Your task to perform on an android device: Show me popular games on the Play Store Image 0: 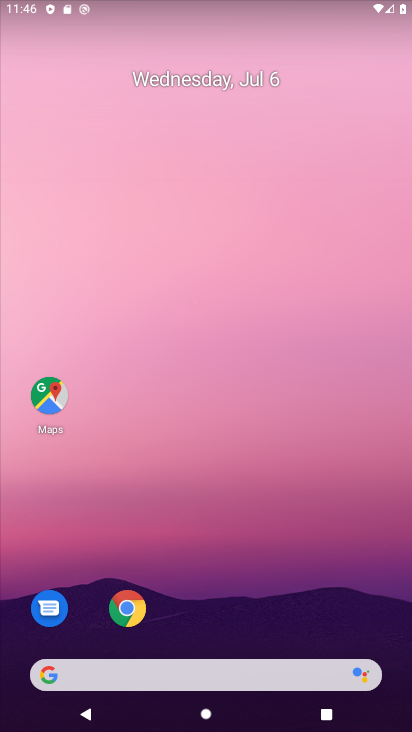
Step 0: drag from (231, 596) to (163, 162)
Your task to perform on an android device: Show me popular games on the Play Store Image 1: 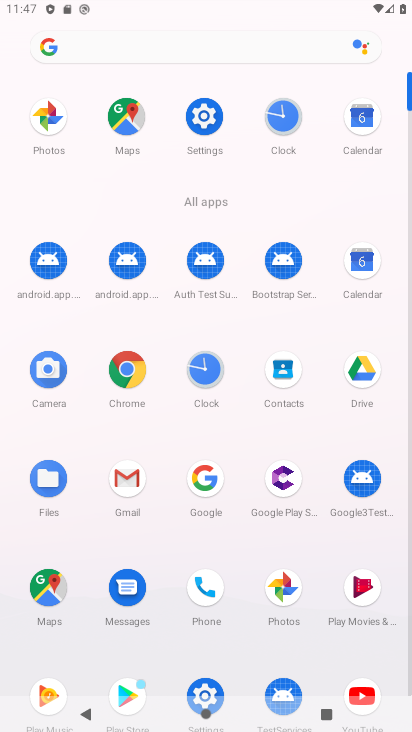
Step 1: click (131, 685)
Your task to perform on an android device: Show me popular games on the Play Store Image 2: 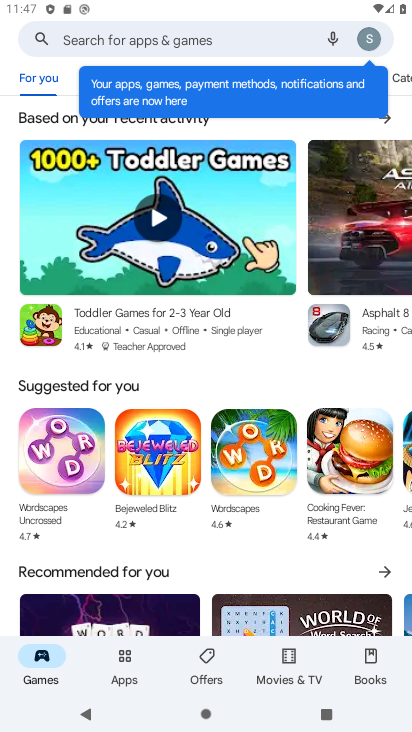
Step 2: task complete